Your task to perform on an android device: change the clock display to analog Image 0: 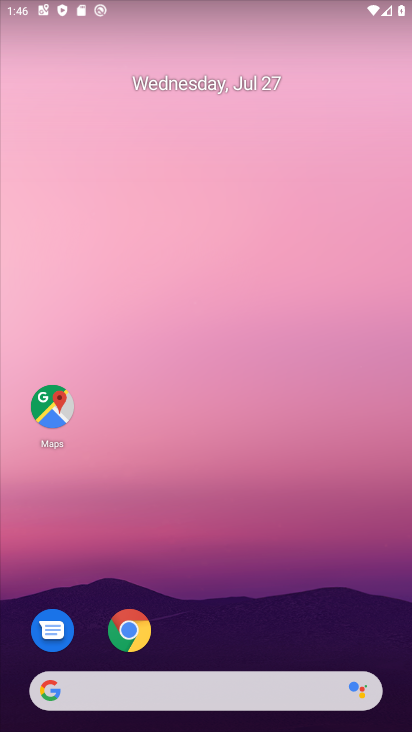
Step 0: drag from (382, 633) to (346, 139)
Your task to perform on an android device: change the clock display to analog Image 1: 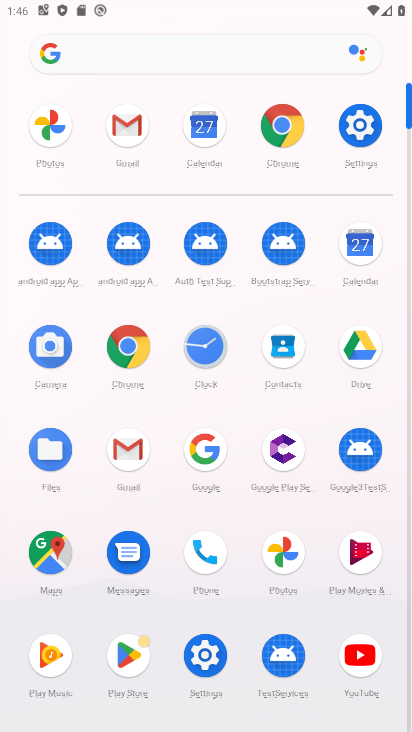
Step 1: click (205, 348)
Your task to perform on an android device: change the clock display to analog Image 2: 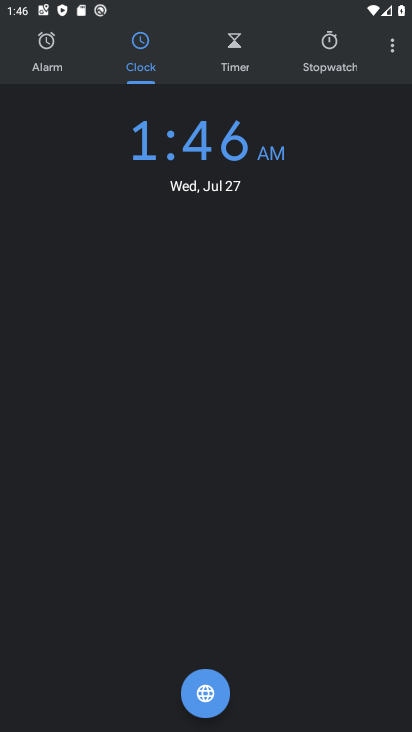
Step 2: click (396, 52)
Your task to perform on an android device: change the clock display to analog Image 3: 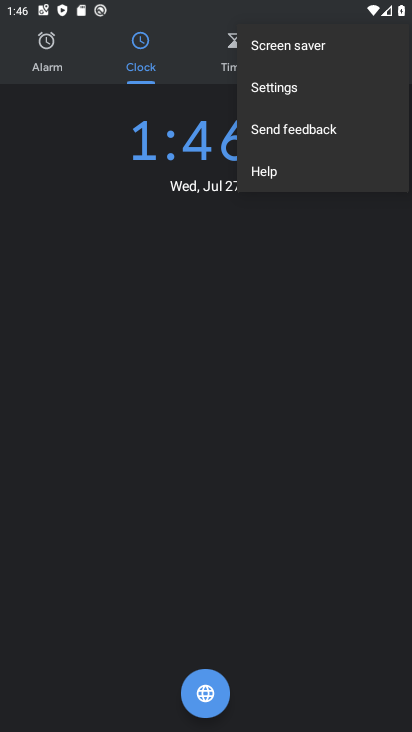
Step 3: click (266, 88)
Your task to perform on an android device: change the clock display to analog Image 4: 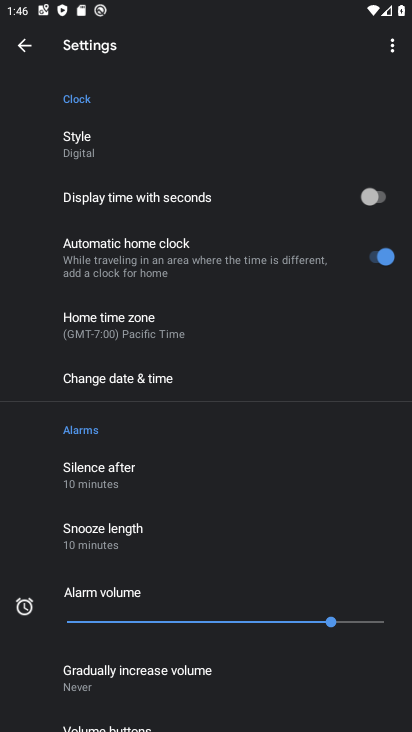
Step 4: click (83, 145)
Your task to perform on an android device: change the clock display to analog Image 5: 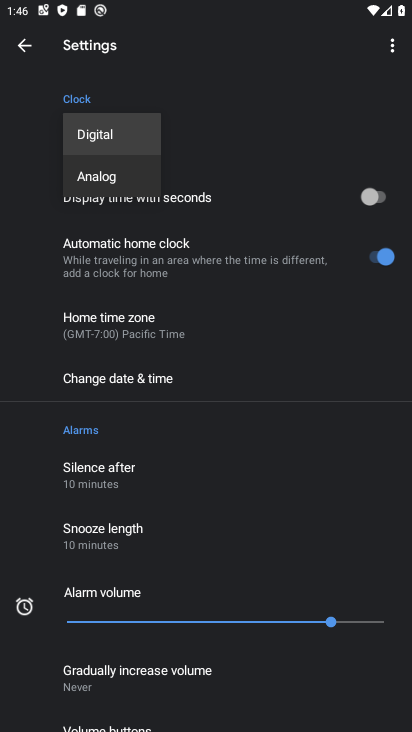
Step 5: click (96, 168)
Your task to perform on an android device: change the clock display to analog Image 6: 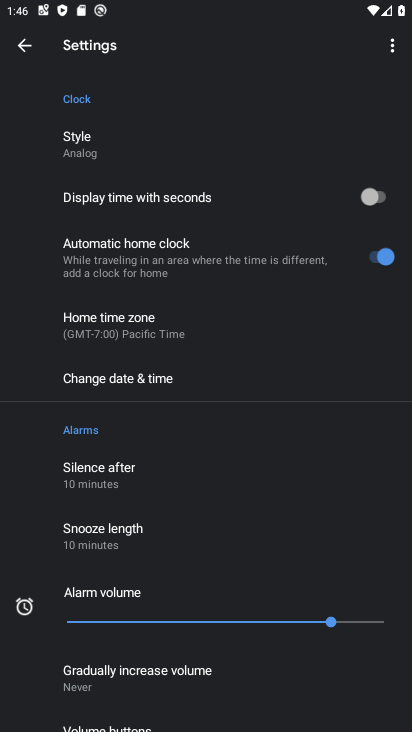
Step 6: task complete